Your task to perform on an android device: Open Chrome and go to settings Image 0: 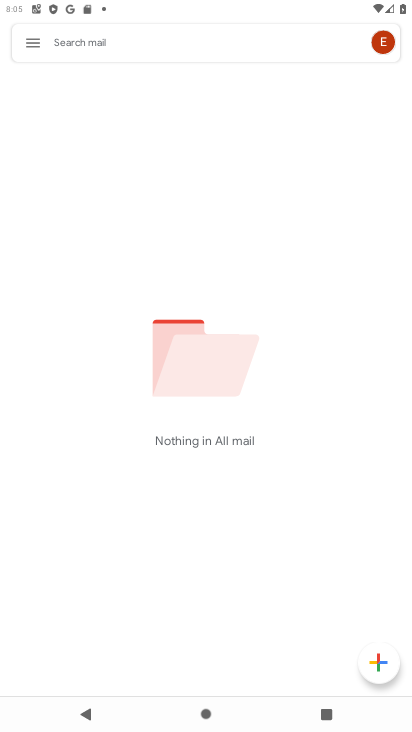
Step 0: press home button
Your task to perform on an android device: Open Chrome and go to settings Image 1: 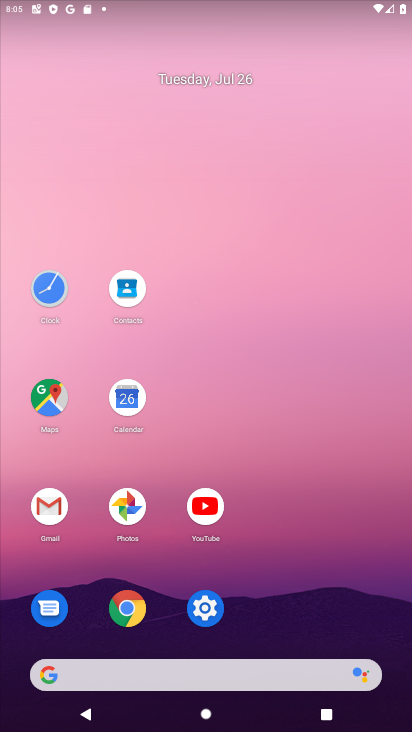
Step 1: click (125, 612)
Your task to perform on an android device: Open Chrome and go to settings Image 2: 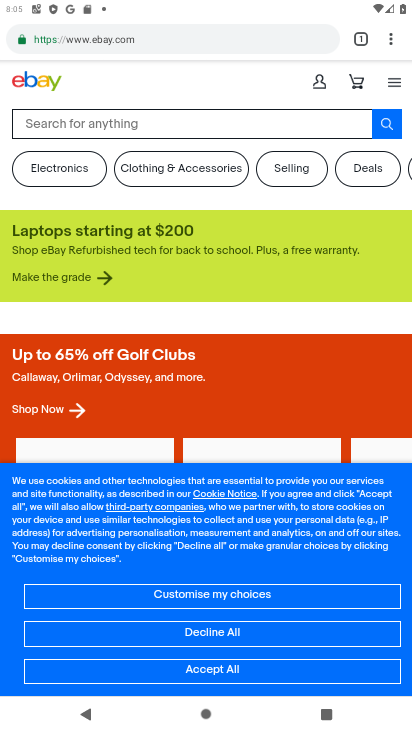
Step 2: click (393, 37)
Your task to perform on an android device: Open Chrome and go to settings Image 3: 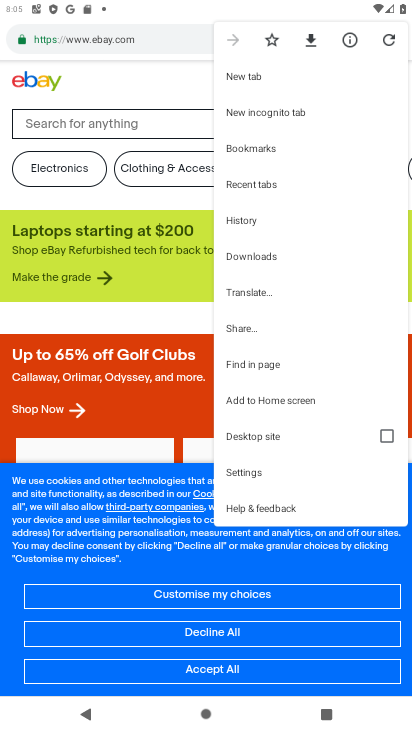
Step 3: click (250, 471)
Your task to perform on an android device: Open Chrome and go to settings Image 4: 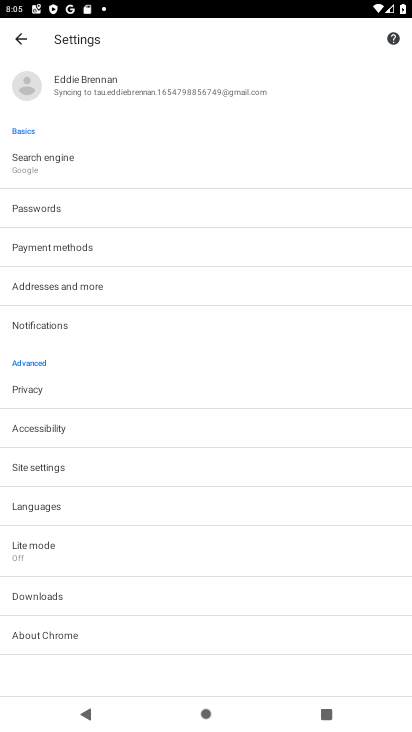
Step 4: task complete